Your task to perform on an android device: Open the web browser Image 0: 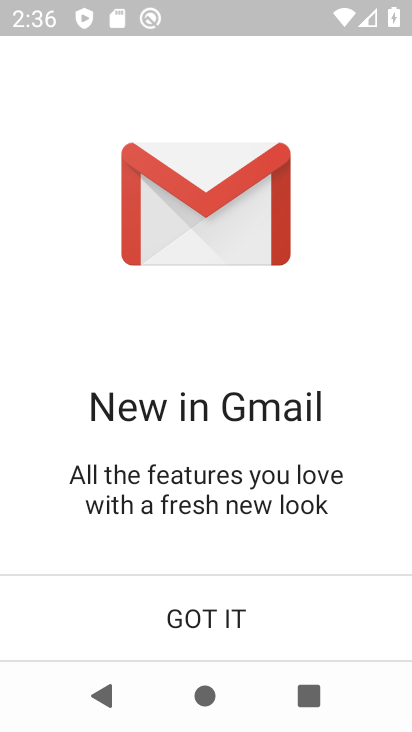
Step 0: click (204, 622)
Your task to perform on an android device: Open the web browser Image 1: 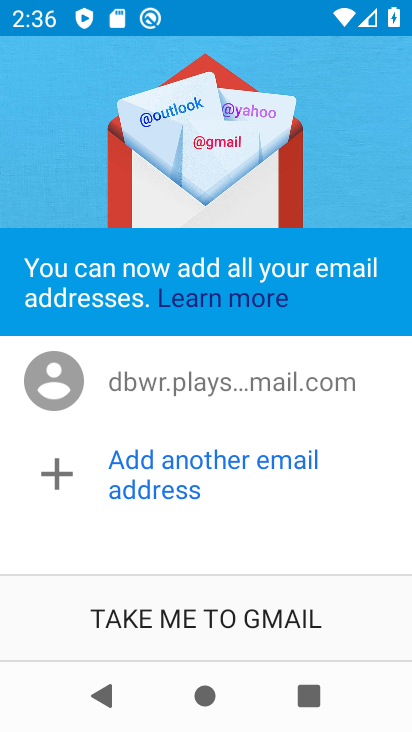
Step 1: click (250, 637)
Your task to perform on an android device: Open the web browser Image 2: 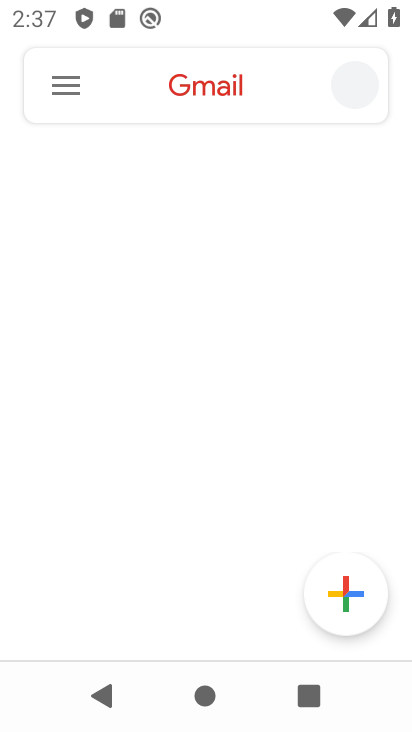
Step 2: press back button
Your task to perform on an android device: Open the web browser Image 3: 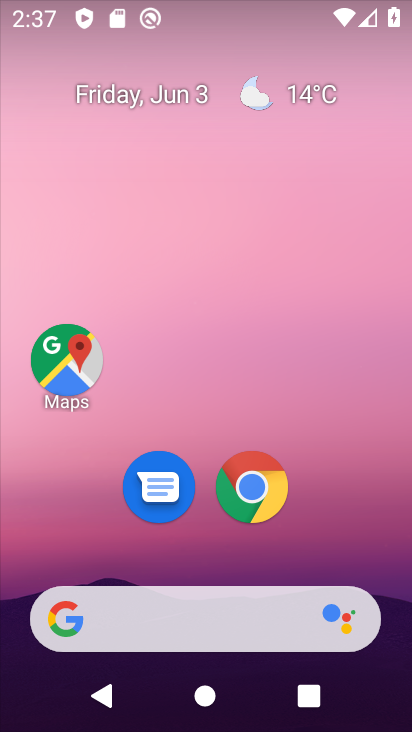
Step 3: click (266, 496)
Your task to perform on an android device: Open the web browser Image 4: 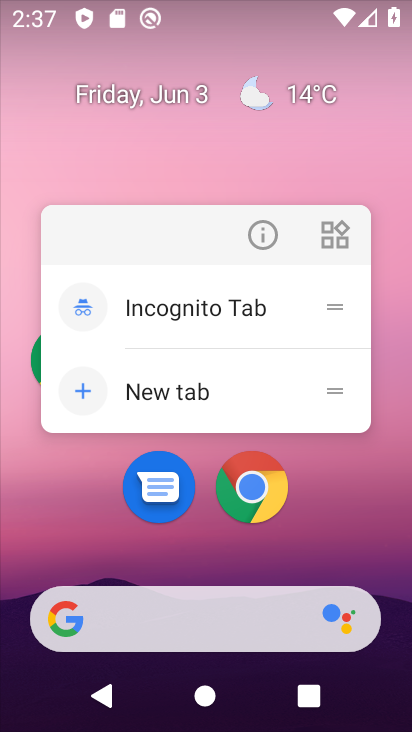
Step 4: click (261, 487)
Your task to perform on an android device: Open the web browser Image 5: 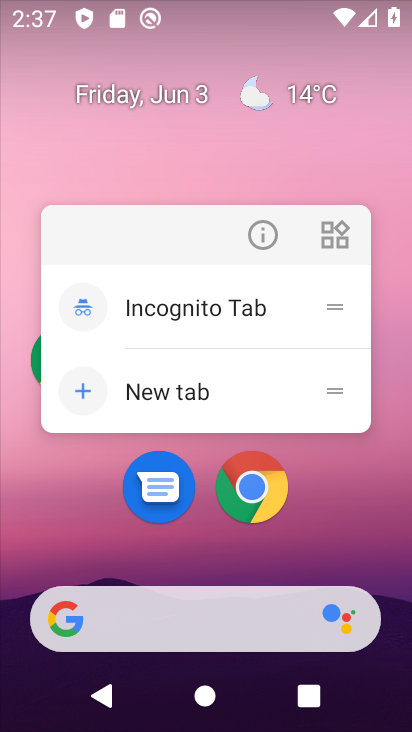
Step 5: click (245, 474)
Your task to perform on an android device: Open the web browser Image 6: 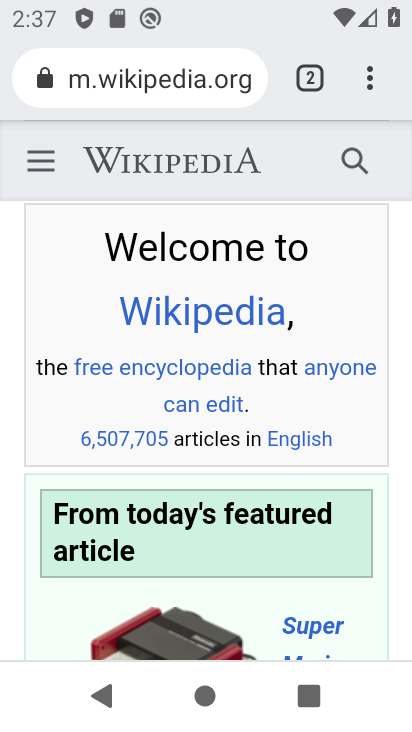
Step 6: click (315, 78)
Your task to perform on an android device: Open the web browser Image 7: 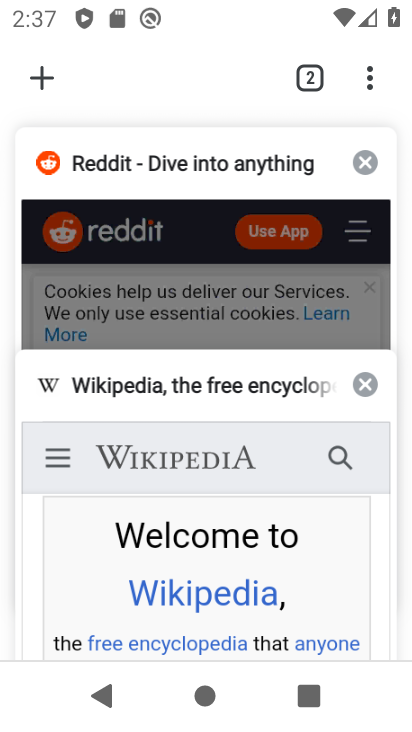
Step 7: click (32, 77)
Your task to perform on an android device: Open the web browser Image 8: 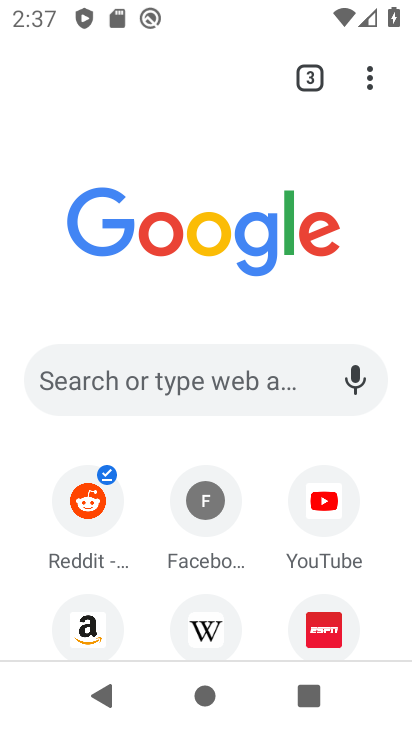
Step 8: task complete